Your task to perform on an android device: Go to accessibility settings Image 0: 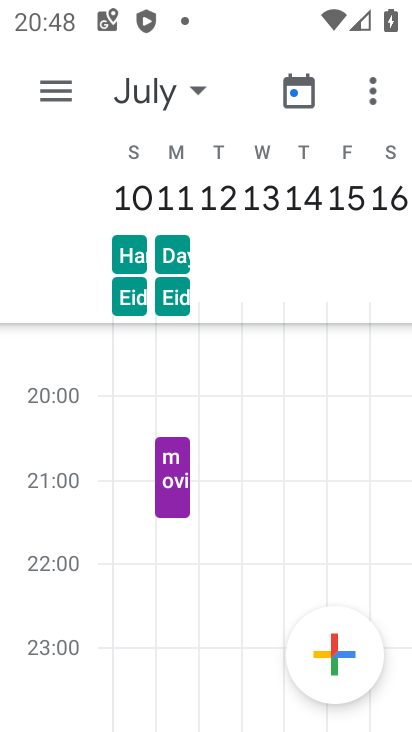
Step 0: press home button
Your task to perform on an android device: Go to accessibility settings Image 1: 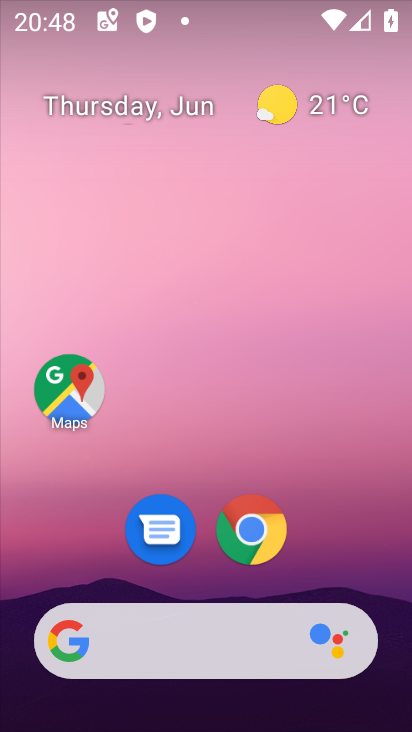
Step 1: drag from (327, 539) to (196, 151)
Your task to perform on an android device: Go to accessibility settings Image 2: 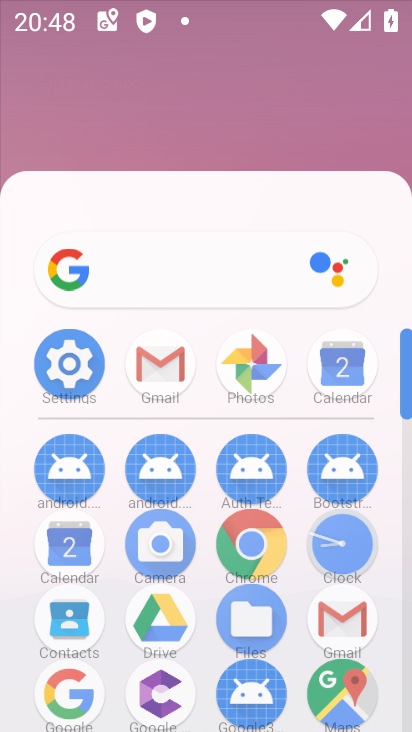
Step 2: click (196, 151)
Your task to perform on an android device: Go to accessibility settings Image 3: 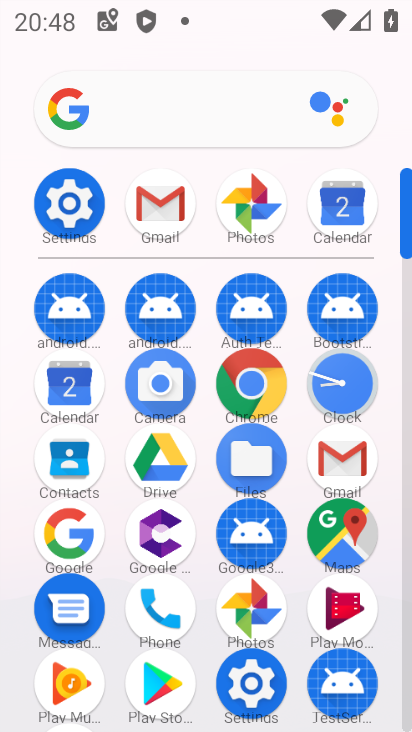
Step 3: click (68, 204)
Your task to perform on an android device: Go to accessibility settings Image 4: 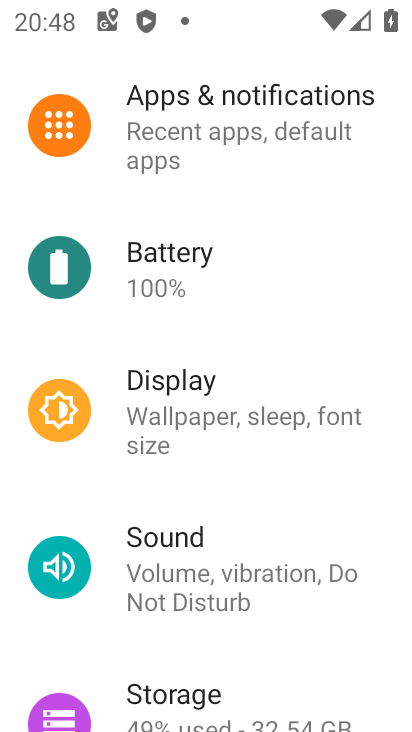
Step 4: drag from (234, 641) to (209, 246)
Your task to perform on an android device: Go to accessibility settings Image 5: 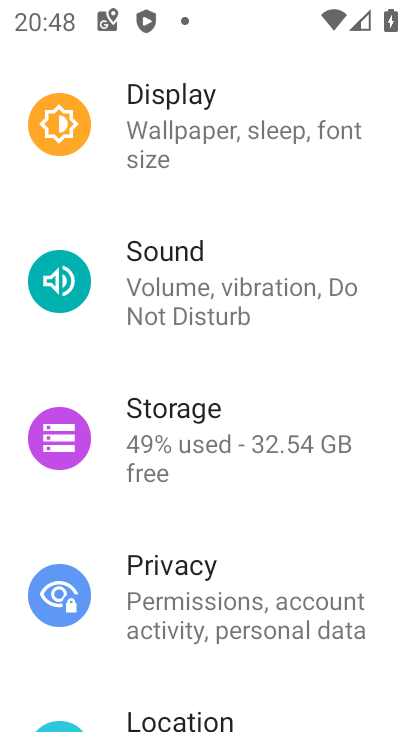
Step 5: drag from (234, 518) to (215, 199)
Your task to perform on an android device: Go to accessibility settings Image 6: 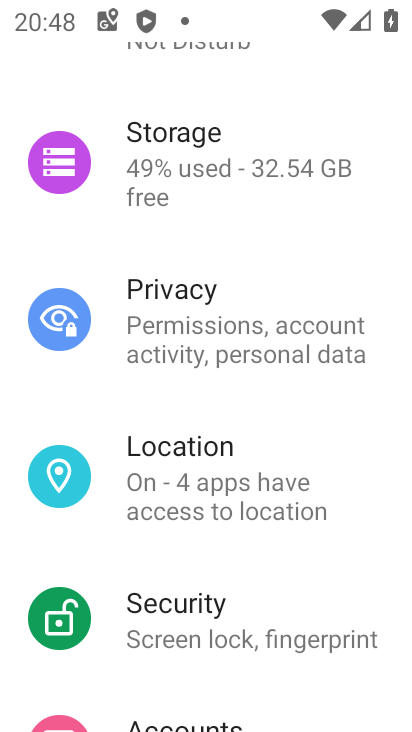
Step 6: drag from (241, 595) to (219, 261)
Your task to perform on an android device: Go to accessibility settings Image 7: 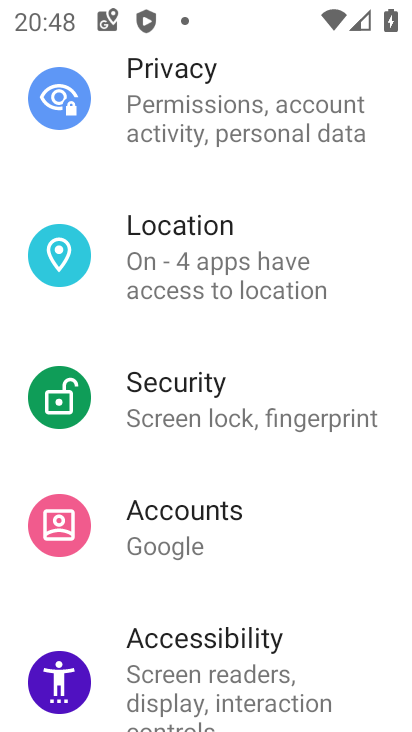
Step 7: click (195, 639)
Your task to perform on an android device: Go to accessibility settings Image 8: 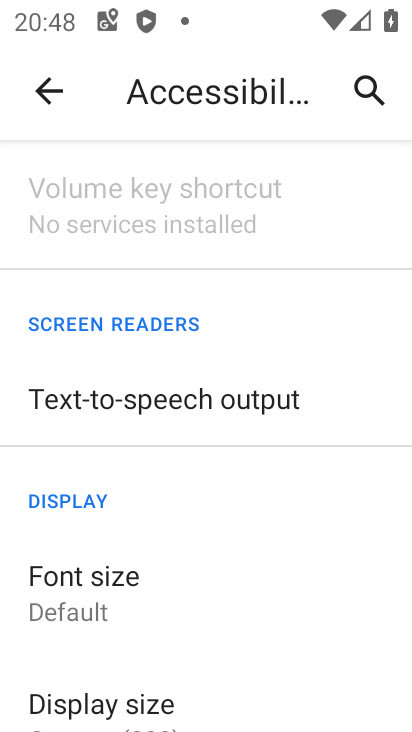
Step 8: task complete